Your task to perform on an android device: Open calendar and show me the first week of next month Image 0: 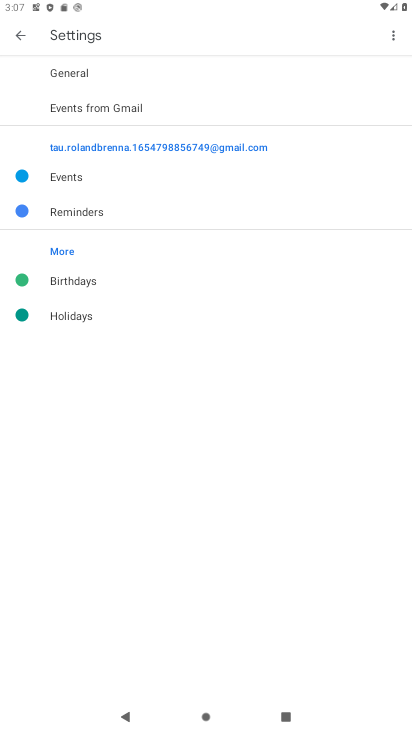
Step 0: press home button
Your task to perform on an android device: Open calendar and show me the first week of next month Image 1: 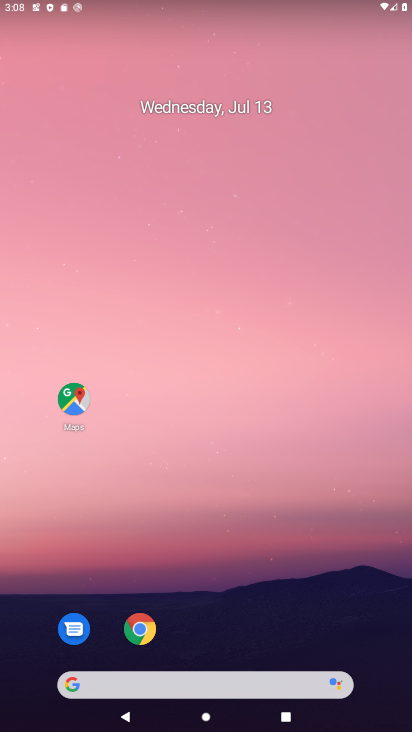
Step 1: drag from (299, 546) to (264, 67)
Your task to perform on an android device: Open calendar and show me the first week of next month Image 2: 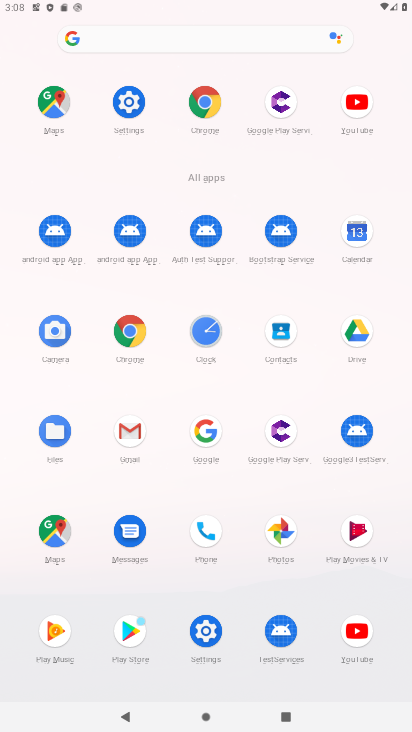
Step 2: click (363, 227)
Your task to perform on an android device: Open calendar and show me the first week of next month Image 3: 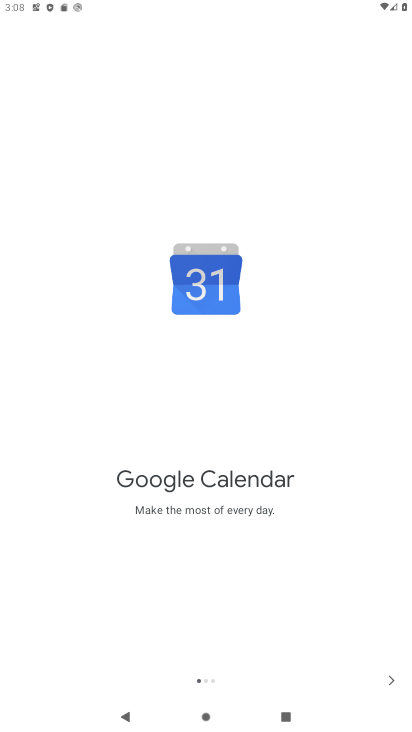
Step 3: click (391, 674)
Your task to perform on an android device: Open calendar and show me the first week of next month Image 4: 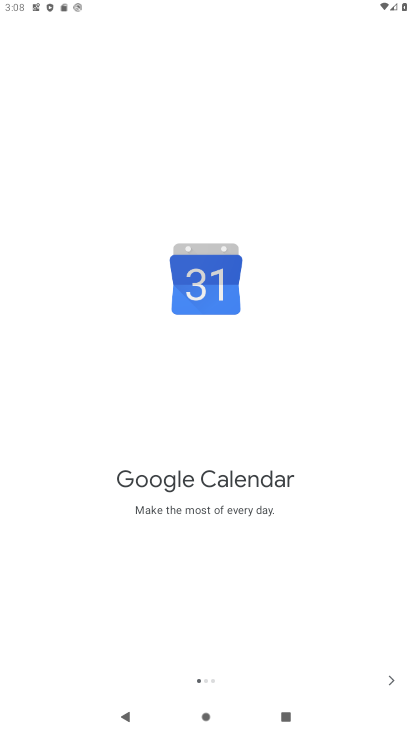
Step 4: click (391, 674)
Your task to perform on an android device: Open calendar and show me the first week of next month Image 5: 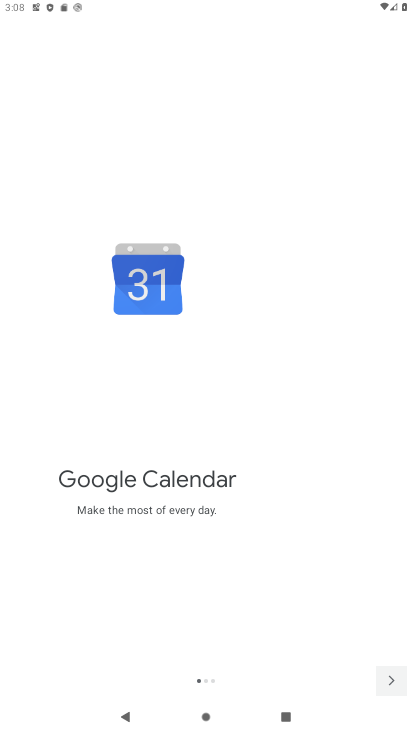
Step 5: click (391, 674)
Your task to perform on an android device: Open calendar and show me the first week of next month Image 6: 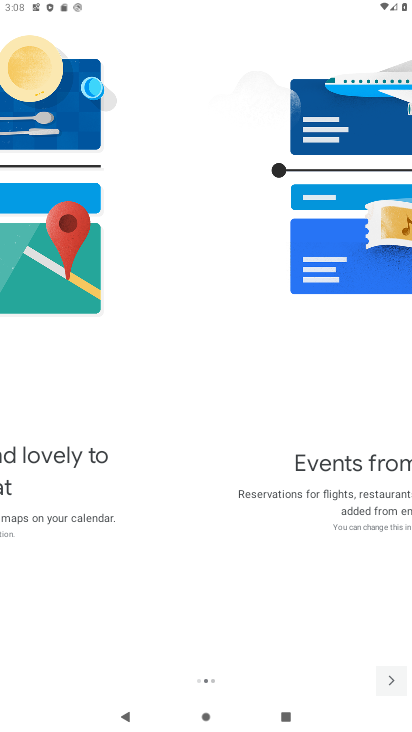
Step 6: click (391, 674)
Your task to perform on an android device: Open calendar and show me the first week of next month Image 7: 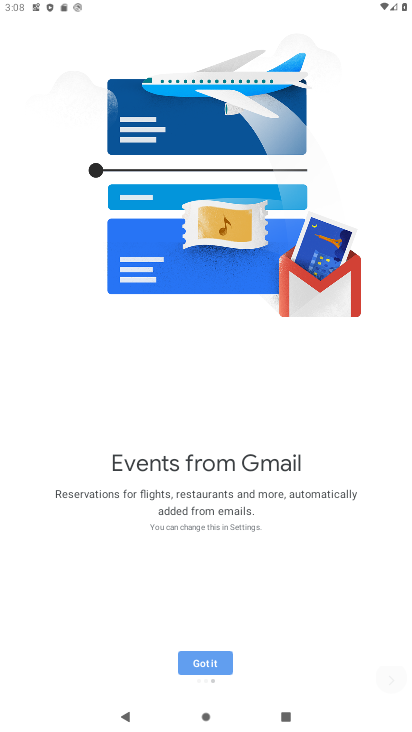
Step 7: click (391, 674)
Your task to perform on an android device: Open calendar and show me the first week of next month Image 8: 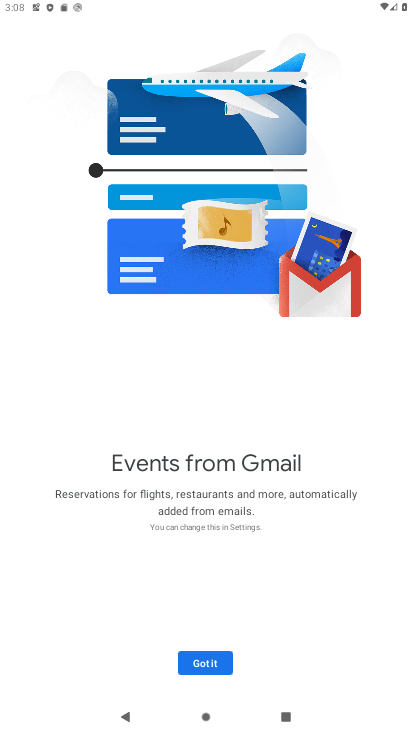
Step 8: click (214, 661)
Your task to perform on an android device: Open calendar and show me the first week of next month Image 9: 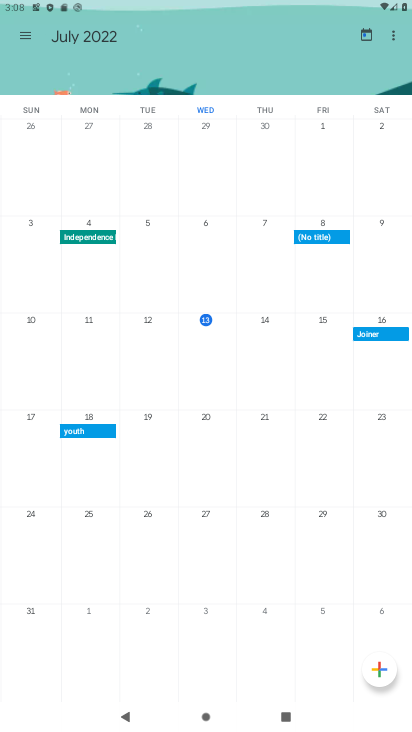
Step 9: click (25, 31)
Your task to perform on an android device: Open calendar and show me the first week of next month Image 10: 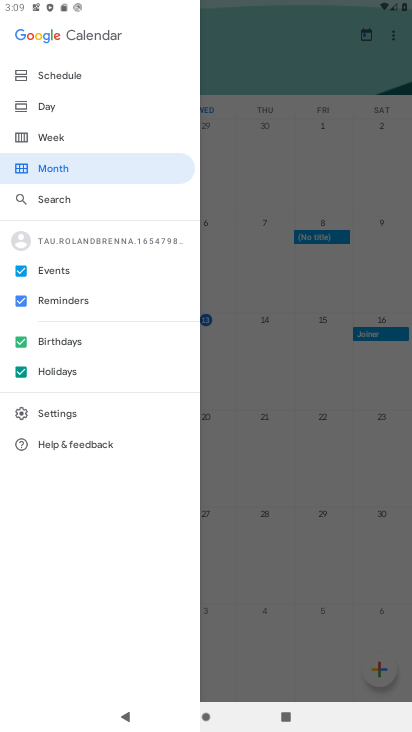
Step 10: click (71, 136)
Your task to perform on an android device: Open calendar and show me the first week of next month Image 11: 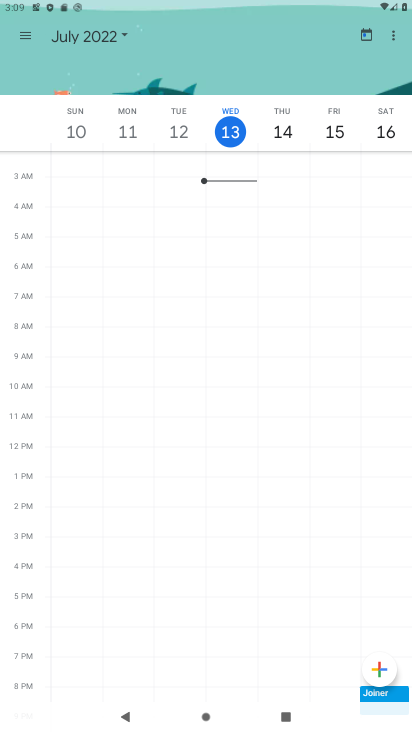
Step 11: click (121, 32)
Your task to perform on an android device: Open calendar and show me the first week of next month Image 12: 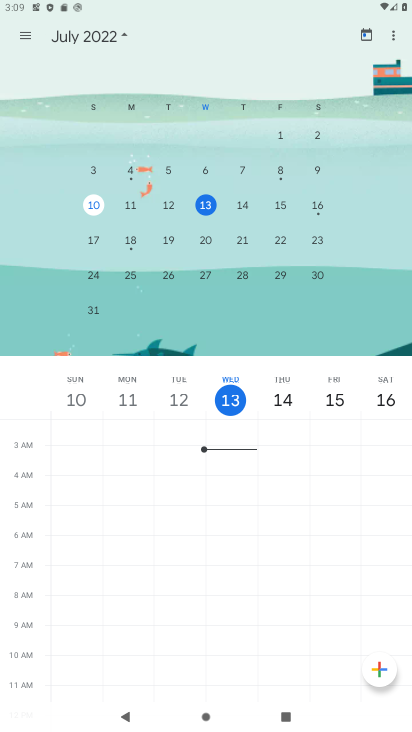
Step 12: drag from (323, 278) to (20, 252)
Your task to perform on an android device: Open calendar and show me the first week of next month Image 13: 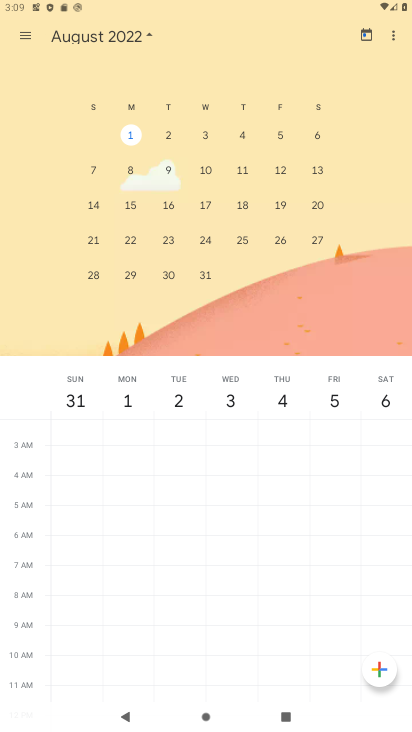
Step 13: click (168, 127)
Your task to perform on an android device: Open calendar and show me the first week of next month Image 14: 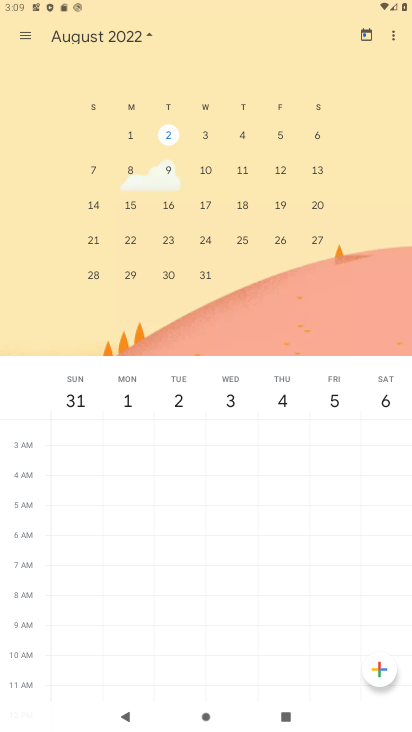
Step 14: task complete